Your task to perform on an android device: see creations saved in the google photos Image 0: 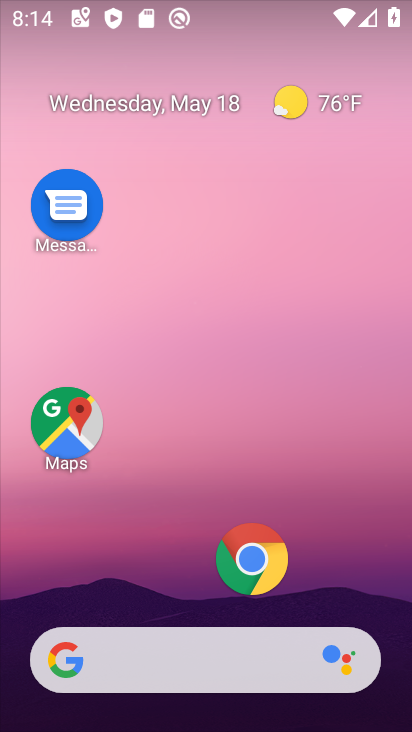
Step 0: drag from (222, 618) to (95, 66)
Your task to perform on an android device: see creations saved in the google photos Image 1: 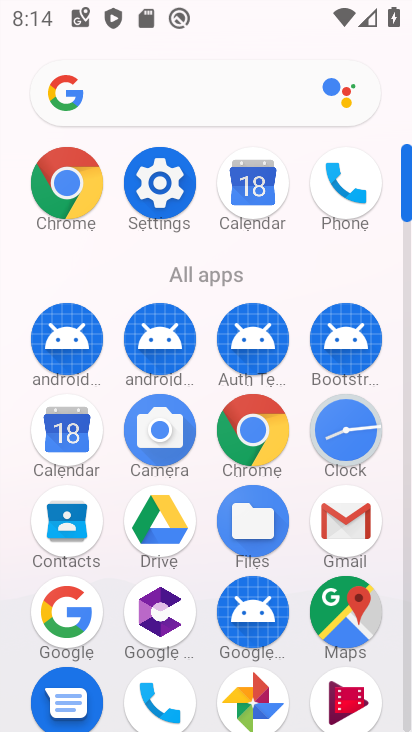
Step 1: click (244, 680)
Your task to perform on an android device: see creations saved in the google photos Image 2: 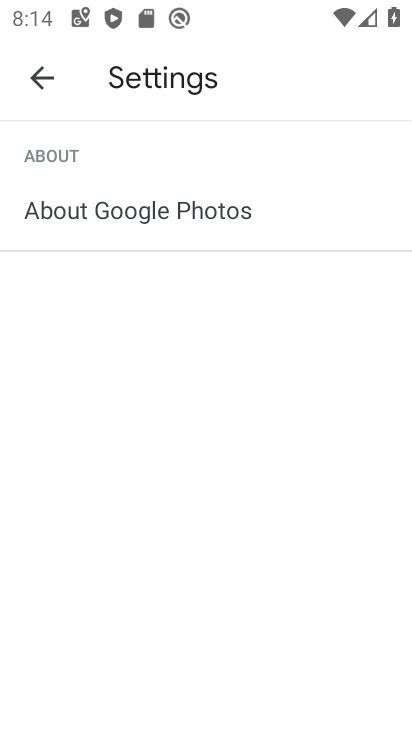
Step 2: click (29, 87)
Your task to perform on an android device: see creations saved in the google photos Image 3: 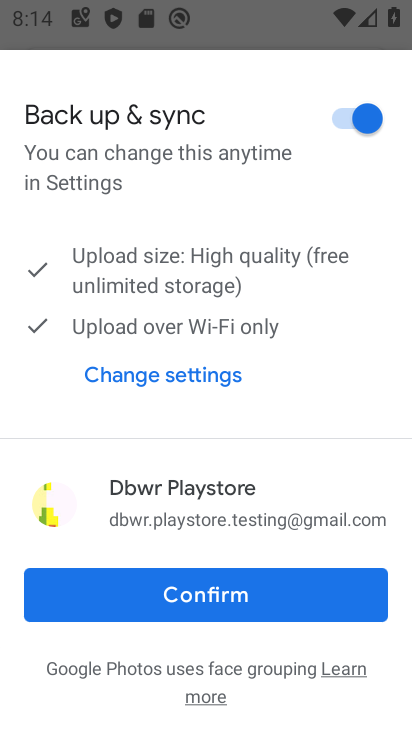
Step 3: click (158, 575)
Your task to perform on an android device: see creations saved in the google photos Image 4: 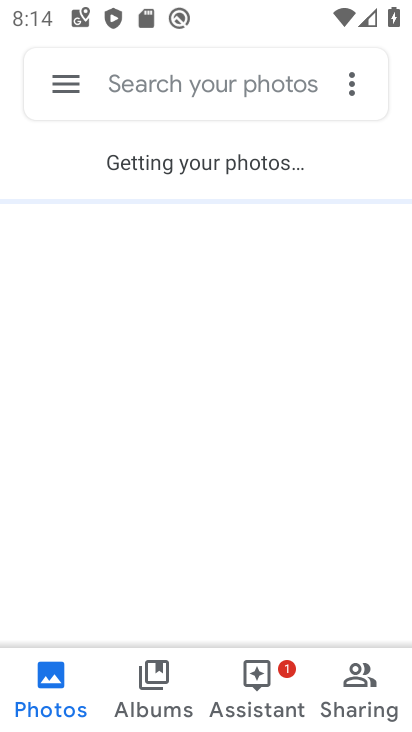
Step 4: click (183, 85)
Your task to perform on an android device: see creations saved in the google photos Image 5: 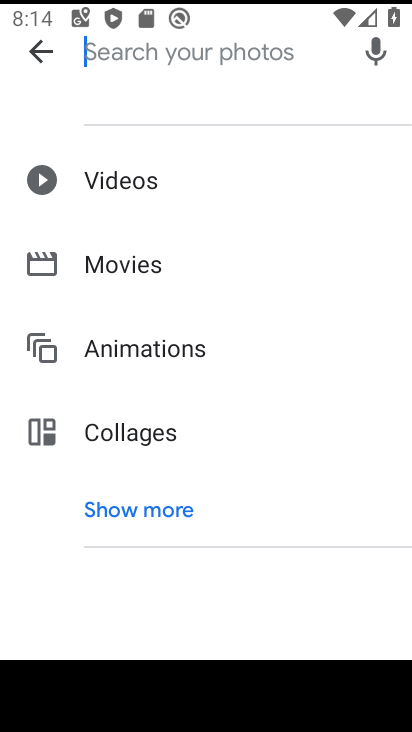
Step 5: click (155, 492)
Your task to perform on an android device: see creations saved in the google photos Image 6: 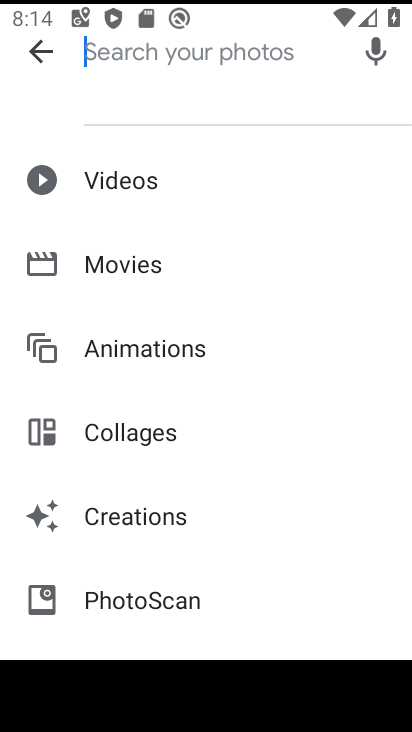
Step 6: click (188, 512)
Your task to perform on an android device: see creations saved in the google photos Image 7: 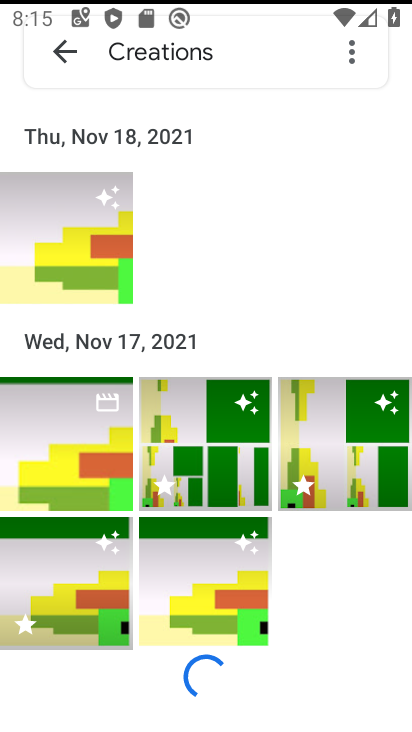
Step 7: task complete